Your task to perform on an android device: Show me productivity apps on the Play Store Image 0: 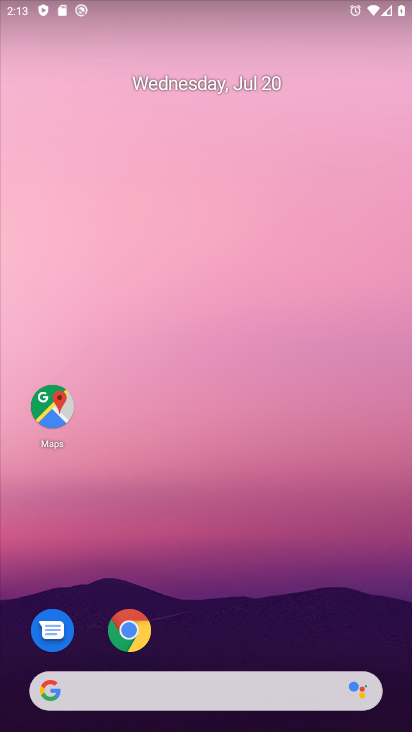
Step 0: click (243, 3)
Your task to perform on an android device: Show me productivity apps on the Play Store Image 1: 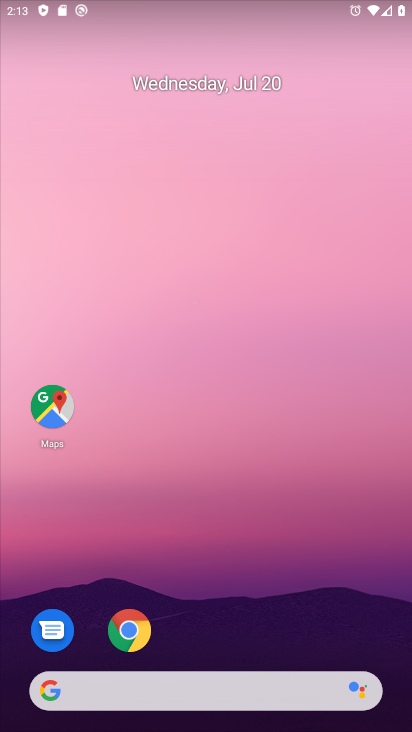
Step 1: drag from (72, 561) to (332, 98)
Your task to perform on an android device: Show me productivity apps on the Play Store Image 2: 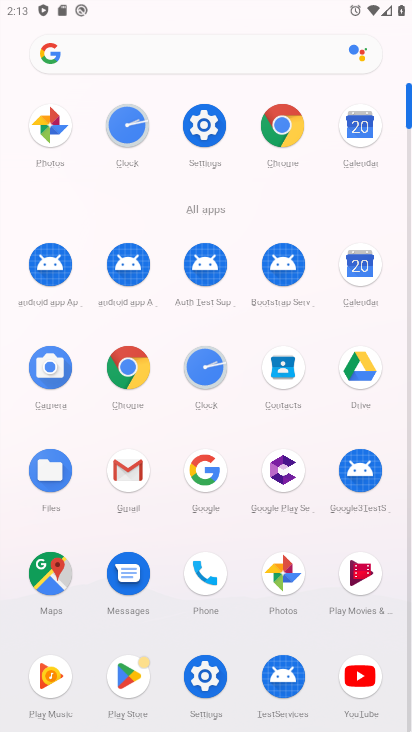
Step 2: click (118, 681)
Your task to perform on an android device: Show me productivity apps on the Play Store Image 3: 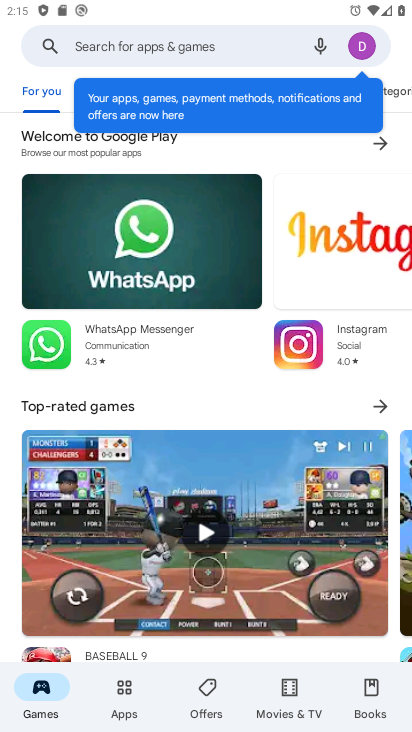
Step 3: task complete